Your task to perform on an android device: open app "Microsoft Authenticator" (install if not already installed) Image 0: 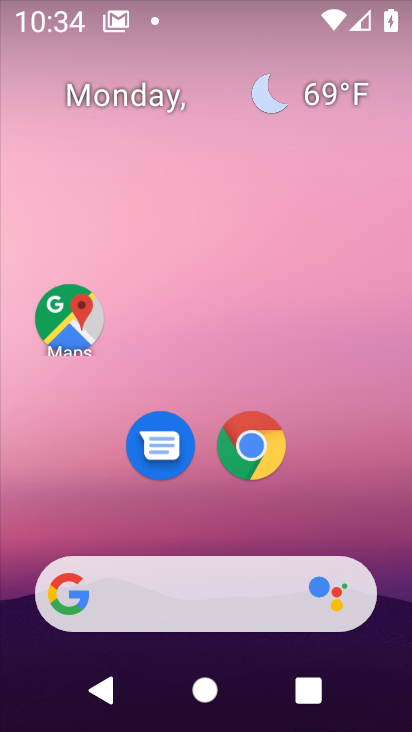
Step 0: drag from (191, 563) to (191, 165)
Your task to perform on an android device: open app "Microsoft Authenticator" (install if not already installed) Image 1: 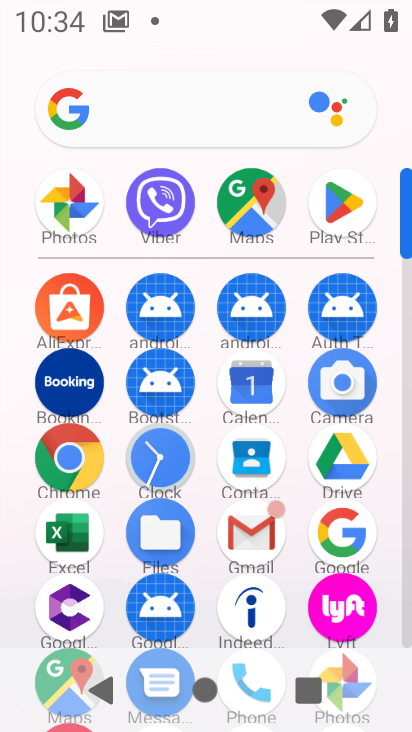
Step 1: click (369, 216)
Your task to perform on an android device: open app "Microsoft Authenticator" (install if not already installed) Image 2: 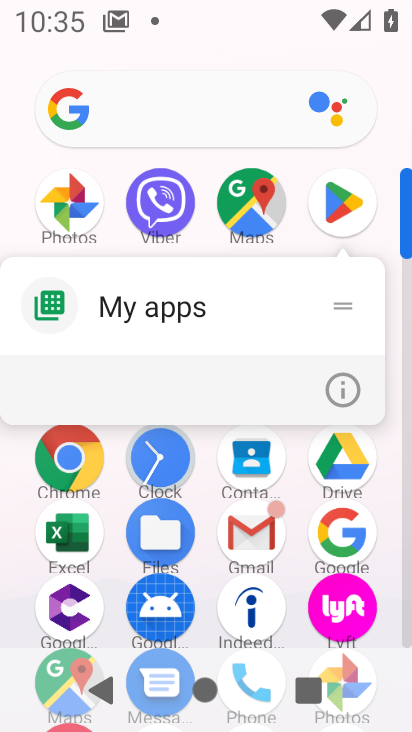
Step 2: click (334, 196)
Your task to perform on an android device: open app "Microsoft Authenticator" (install if not already installed) Image 3: 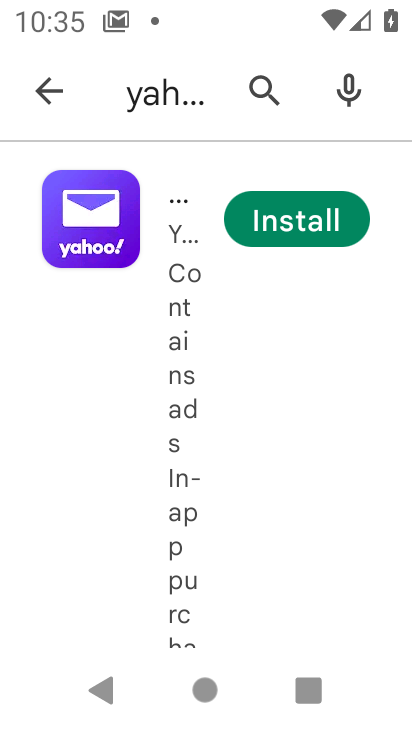
Step 3: click (49, 89)
Your task to perform on an android device: open app "Microsoft Authenticator" (install if not already installed) Image 4: 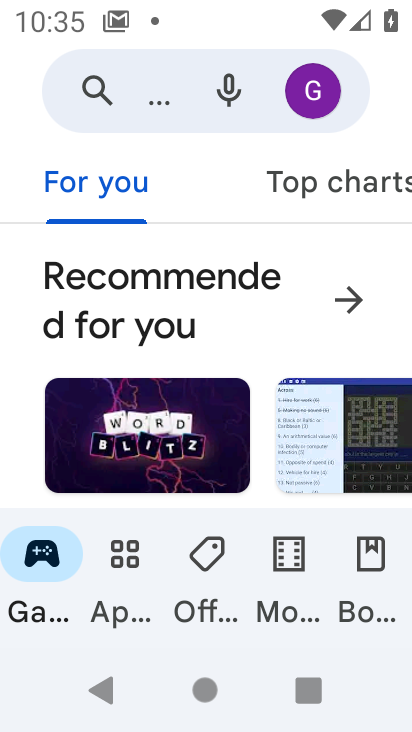
Step 4: click (101, 102)
Your task to perform on an android device: open app "Microsoft Authenticator" (install if not already installed) Image 5: 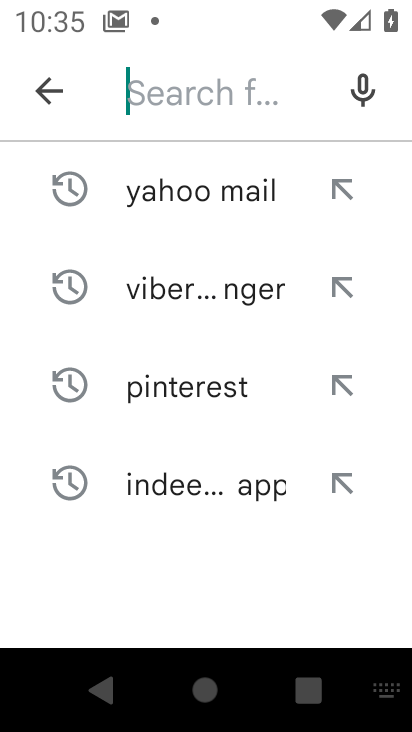
Step 5: type "Microsoft Authenticator"
Your task to perform on an android device: open app "Microsoft Authenticator" (install if not already installed) Image 6: 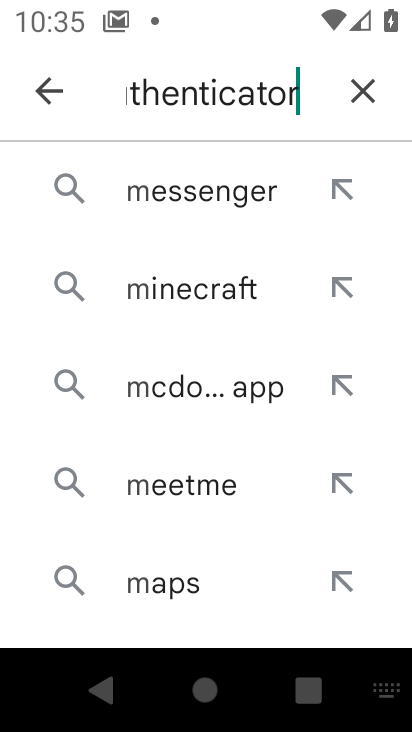
Step 6: type ""
Your task to perform on an android device: open app "Microsoft Authenticator" (install if not already installed) Image 7: 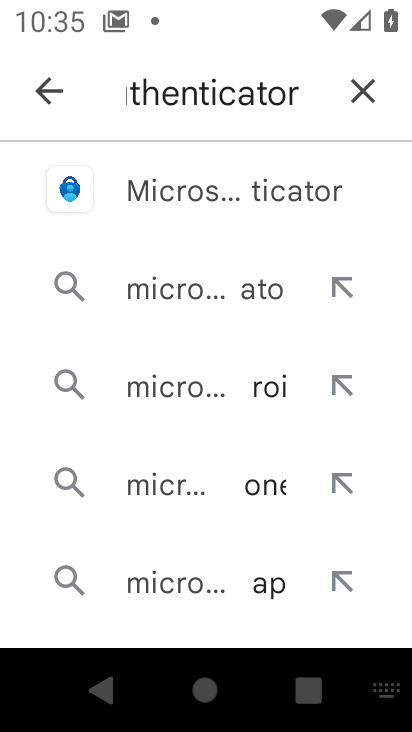
Step 7: click (314, 184)
Your task to perform on an android device: open app "Microsoft Authenticator" (install if not already installed) Image 8: 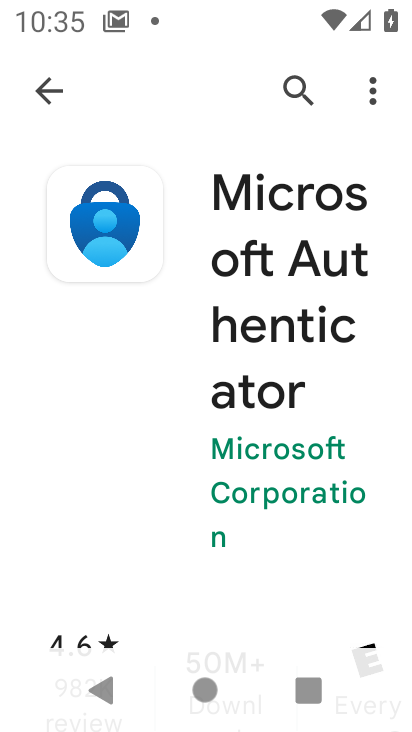
Step 8: drag from (299, 542) to (255, 232)
Your task to perform on an android device: open app "Microsoft Authenticator" (install if not already installed) Image 9: 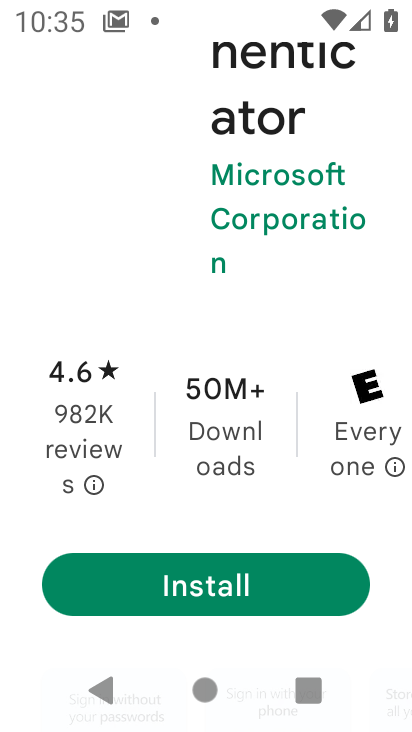
Step 9: click (256, 582)
Your task to perform on an android device: open app "Microsoft Authenticator" (install if not already installed) Image 10: 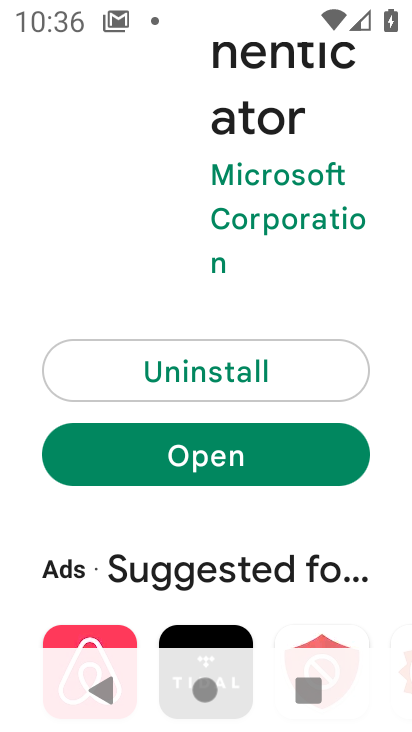
Step 10: click (180, 478)
Your task to perform on an android device: open app "Microsoft Authenticator" (install if not already installed) Image 11: 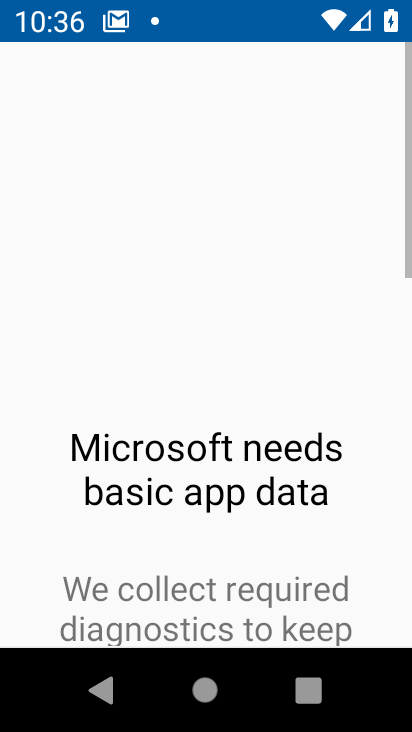
Step 11: task complete